Your task to perform on an android device: Open Maps and search for coffee Image 0: 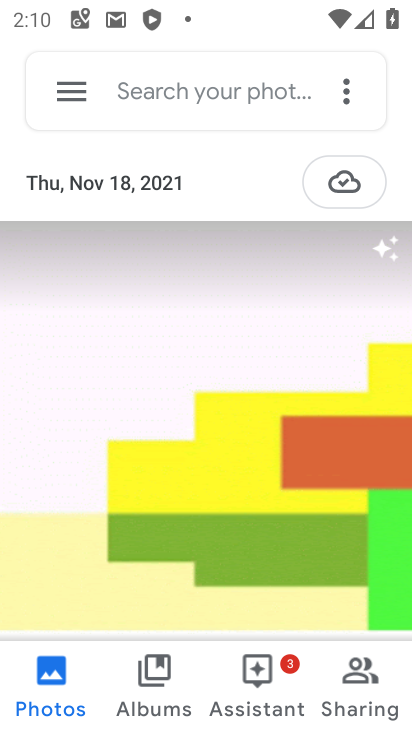
Step 0: press home button
Your task to perform on an android device: Open Maps and search for coffee Image 1: 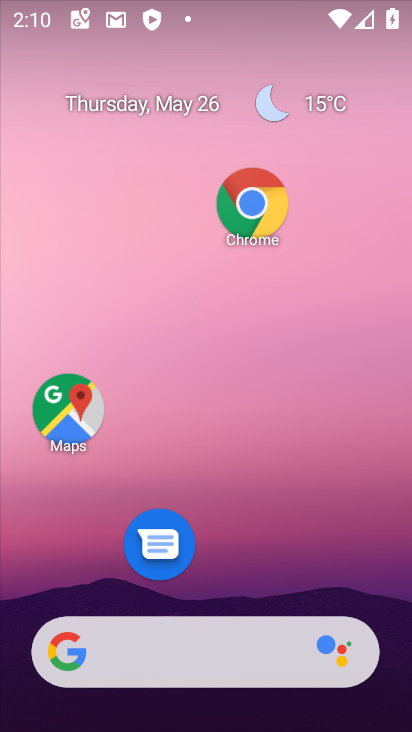
Step 1: drag from (131, 713) to (207, 148)
Your task to perform on an android device: Open Maps and search for coffee Image 2: 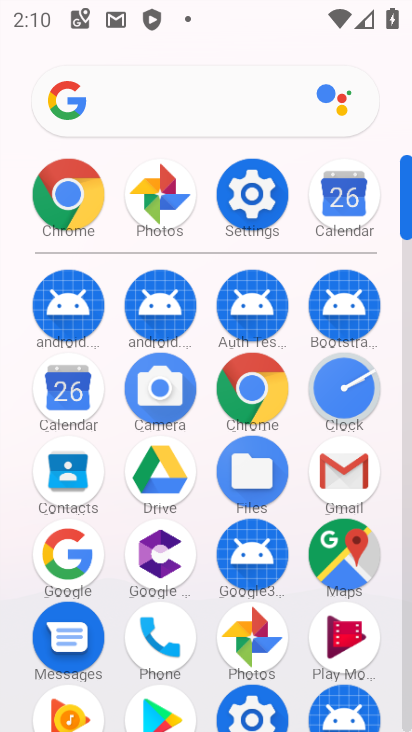
Step 2: click (331, 555)
Your task to perform on an android device: Open Maps and search for coffee Image 3: 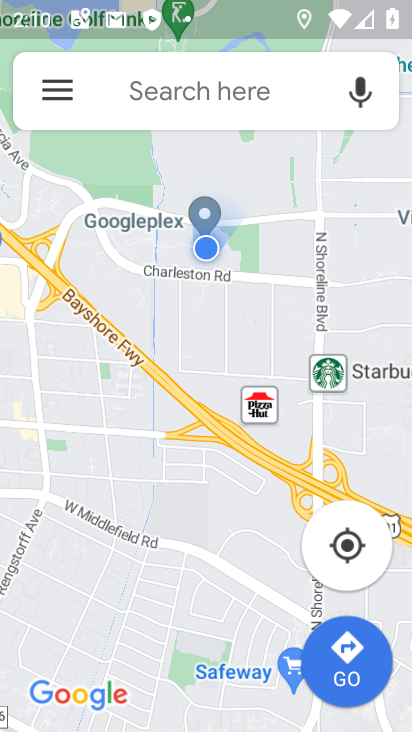
Step 3: click (176, 73)
Your task to perform on an android device: Open Maps and search for coffee Image 4: 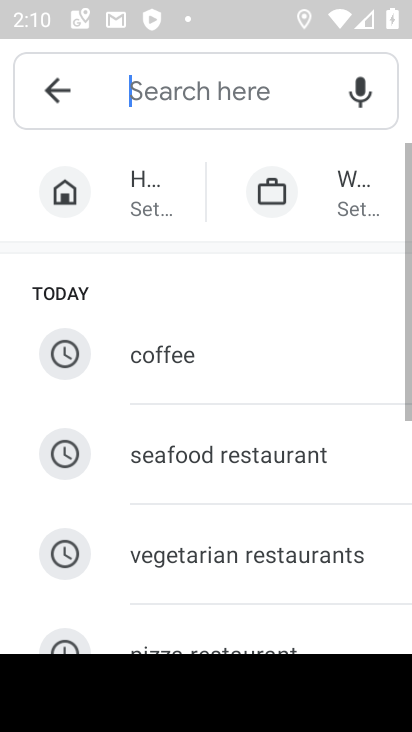
Step 4: click (162, 356)
Your task to perform on an android device: Open Maps and search for coffee Image 5: 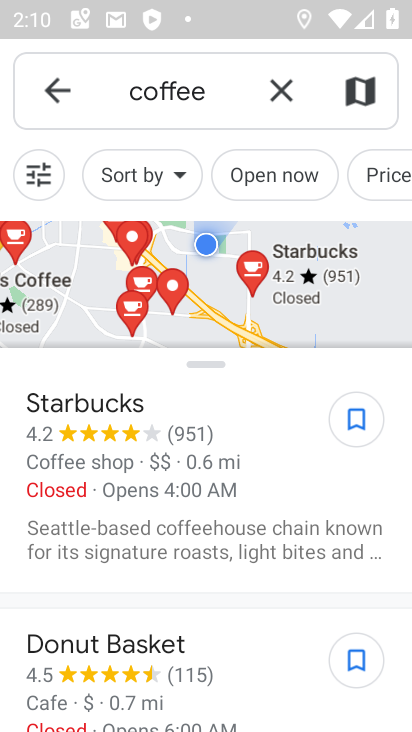
Step 5: task complete